Your task to perform on an android device: Turn off the flashlight Image 0: 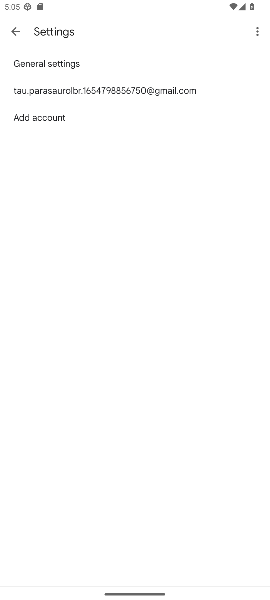
Step 0: press home button
Your task to perform on an android device: Turn off the flashlight Image 1: 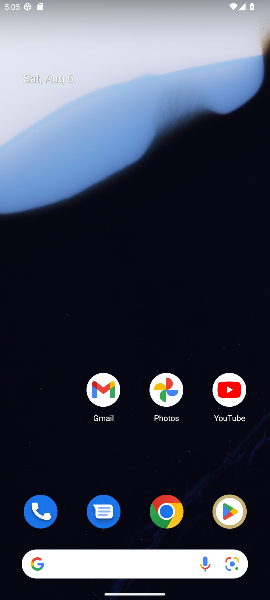
Step 1: drag from (124, 481) to (204, 54)
Your task to perform on an android device: Turn off the flashlight Image 2: 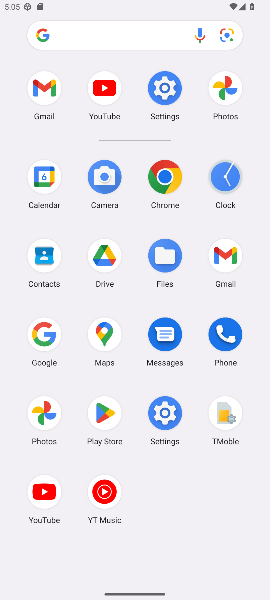
Step 2: click (163, 413)
Your task to perform on an android device: Turn off the flashlight Image 3: 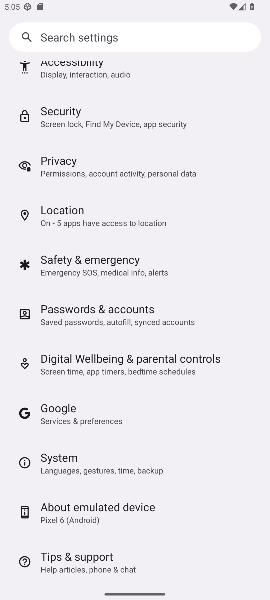
Step 3: drag from (118, 114) to (89, 417)
Your task to perform on an android device: Turn off the flashlight Image 4: 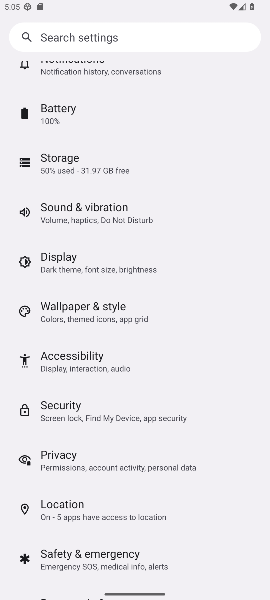
Step 4: click (131, 34)
Your task to perform on an android device: Turn off the flashlight Image 5: 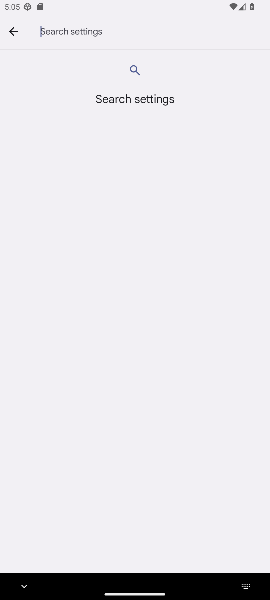
Step 5: type "flashlight"
Your task to perform on an android device: Turn off the flashlight Image 6: 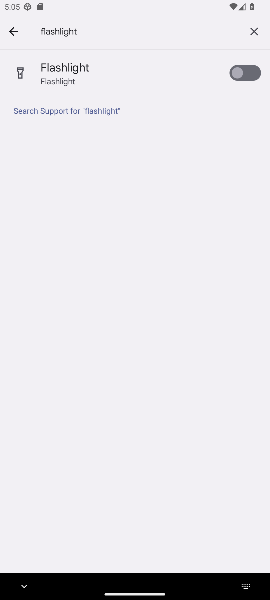
Step 6: task complete